Your task to perform on an android device: What's the weather today? Image 0: 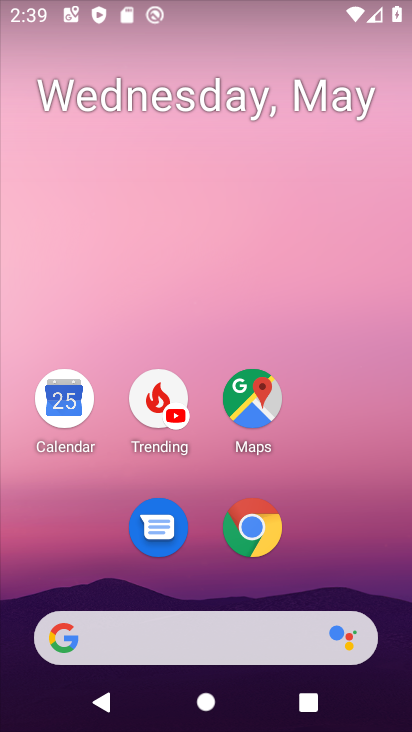
Step 0: drag from (284, 686) to (267, 64)
Your task to perform on an android device: What's the weather today? Image 1: 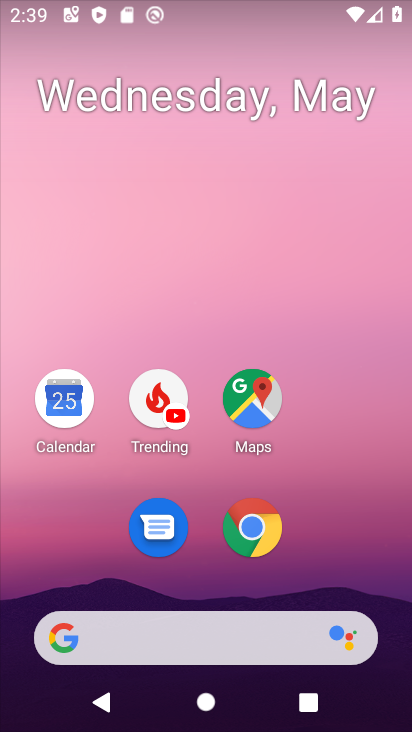
Step 1: click (315, 420)
Your task to perform on an android device: What's the weather today? Image 2: 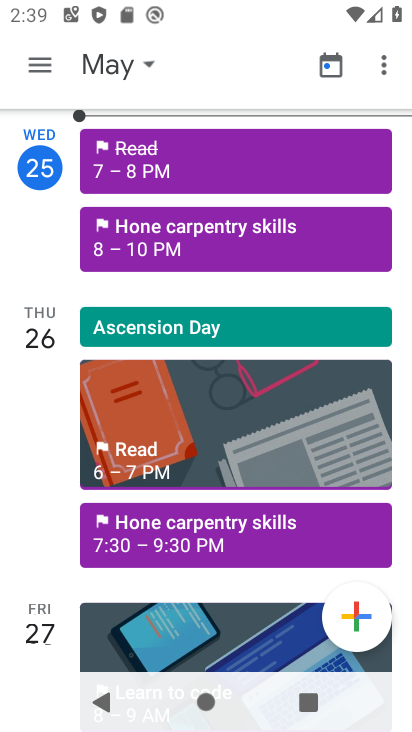
Step 2: drag from (14, 183) to (365, 356)
Your task to perform on an android device: What's the weather today? Image 3: 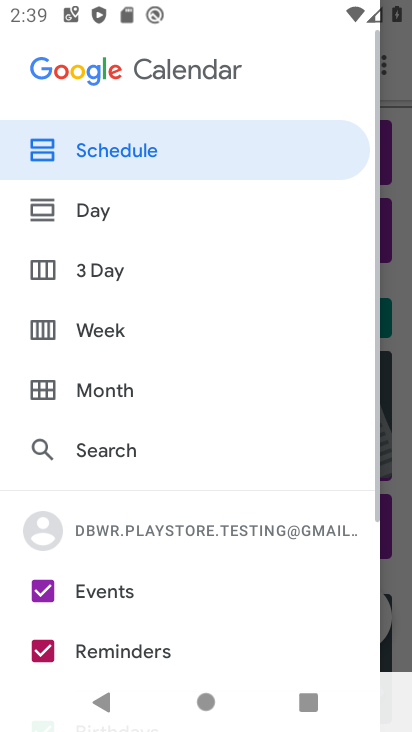
Step 3: press back button
Your task to perform on an android device: What's the weather today? Image 4: 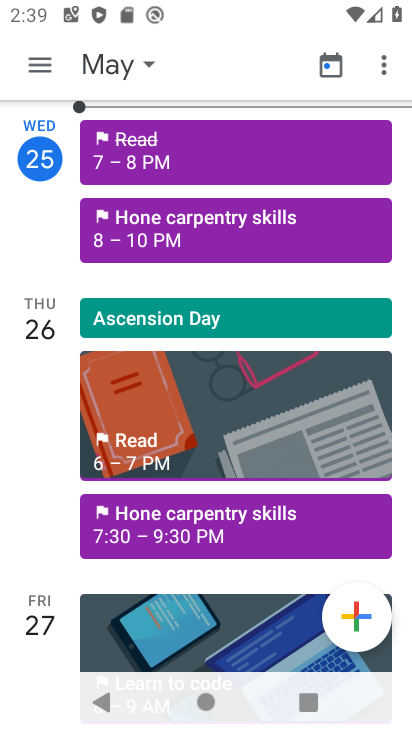
Step 4: press home button
Your task to perform on an android device: What's the weather today? Image 5: 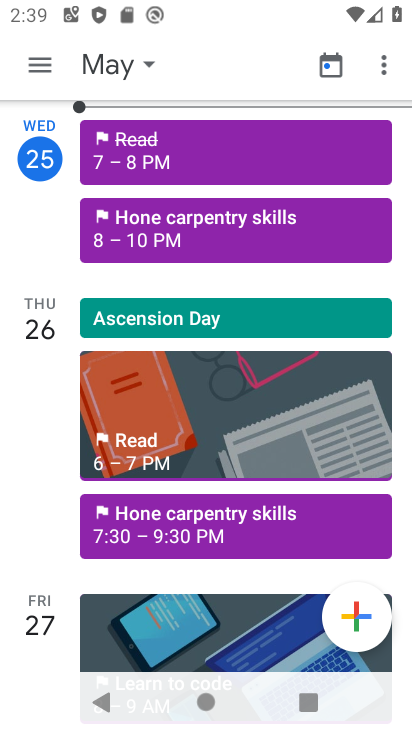
Step 5: press home button
Your task to perform on an android device: What's the weather today? Image 6: 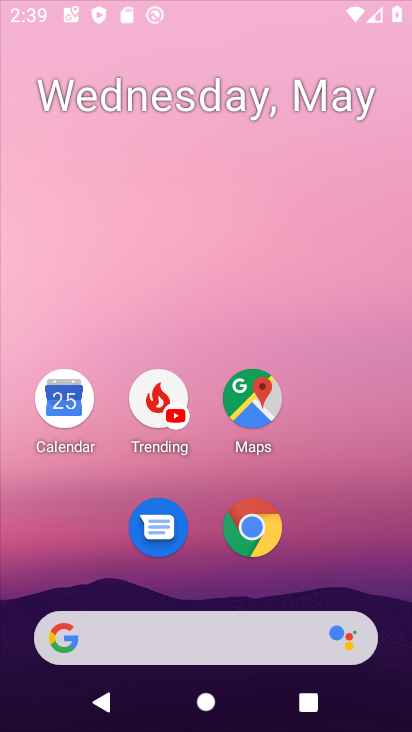
Step 6: press home button
Your task to perform on an android device: What's the weather today? Image 7: 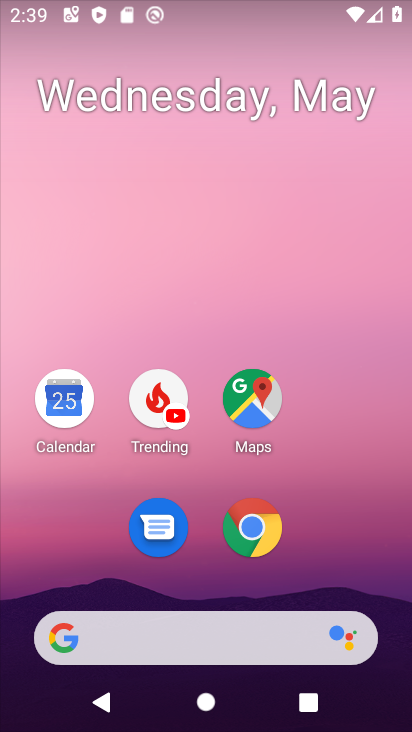
Step 7: press home button
Your task to perform on an android device: What's the weather today? Image 8: 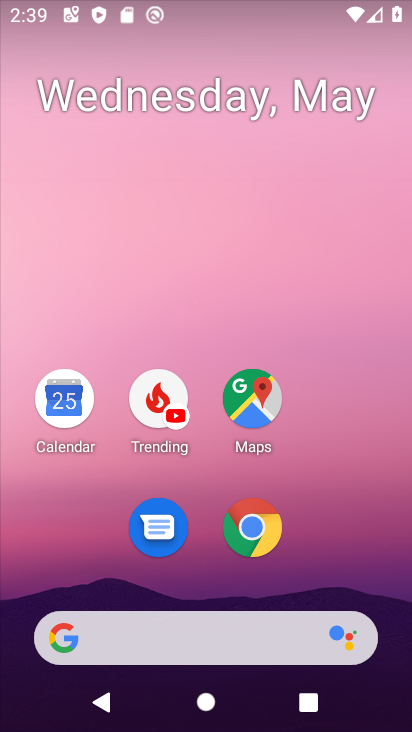
Step 8: drag from (219, 209) to (410, 376)
Your task to perform on an android device: What's the weather today? Image 9: 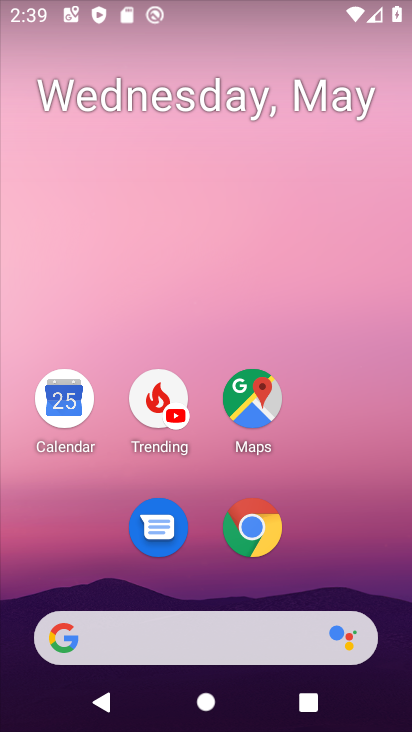
Step 9: drag from (222, 275) to (283, 288)
Your task to perform on an android device: What's the weather today? Image 10: 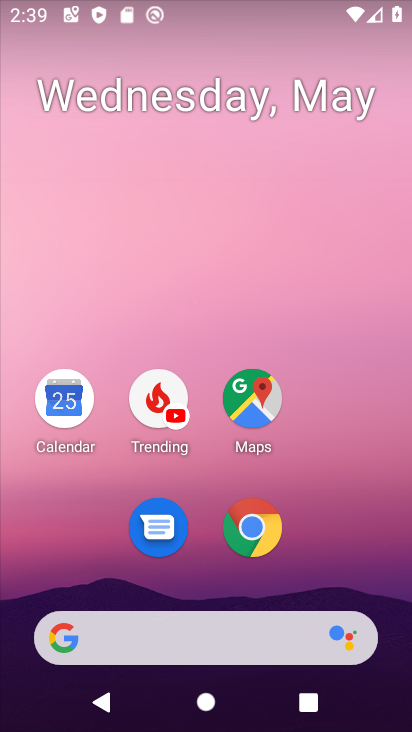
Step 10: drag from (2, 188) to (238, 299)
Your task to perform on an android device: What's the weather today? Image 11: 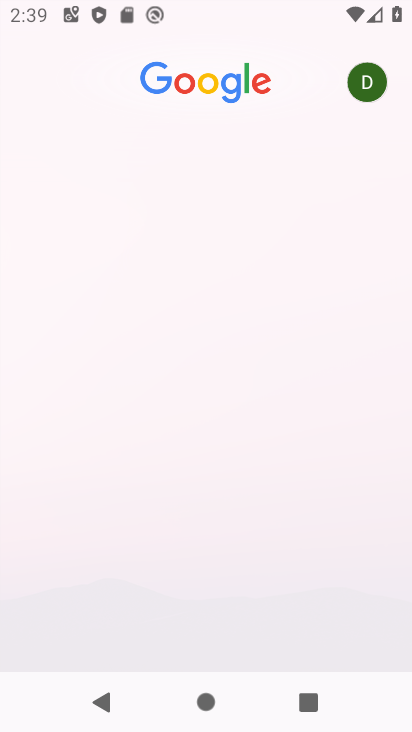
Step 11: drag from (4, 180) to (235, 385)
Your task to perform on an android device: What's the weather today? Image 12: 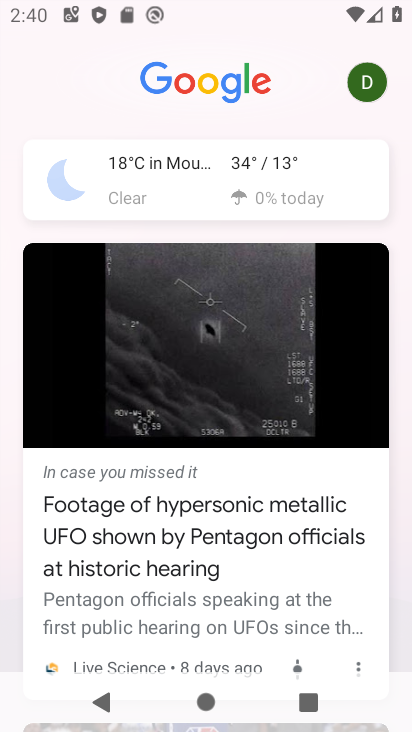
Step 12: click (209, 188)
Your task to perform on an android device: What's the weather today? Image 13: 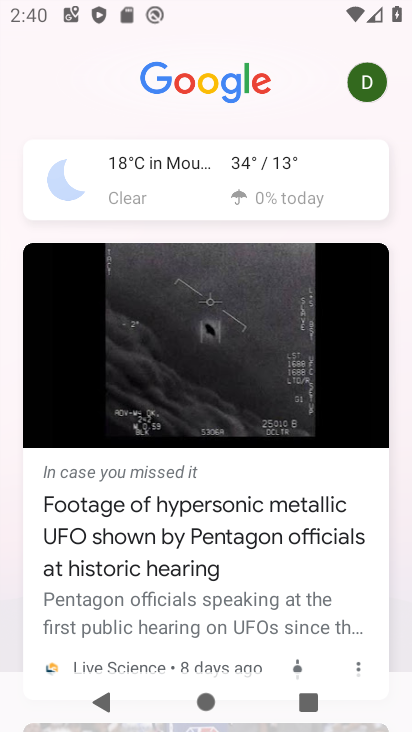
Step 13: click (209, 188)
Your task to perform on an android device: What's the weather today? Image 14: 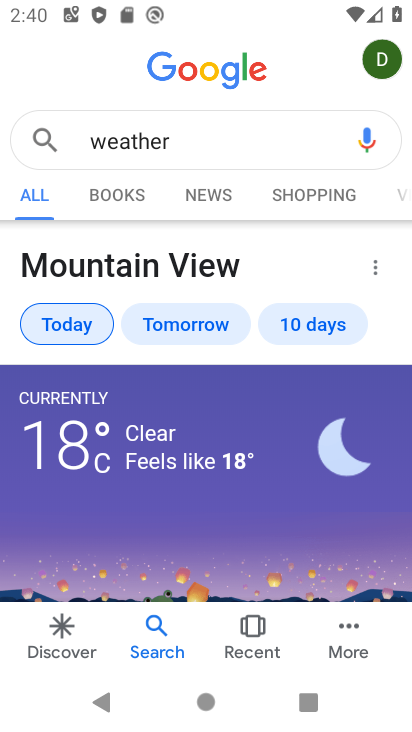
Step 14: task complete